Your task to perform on an android device: Add macbook to the cart on walmart, then select checkout. Image 0: 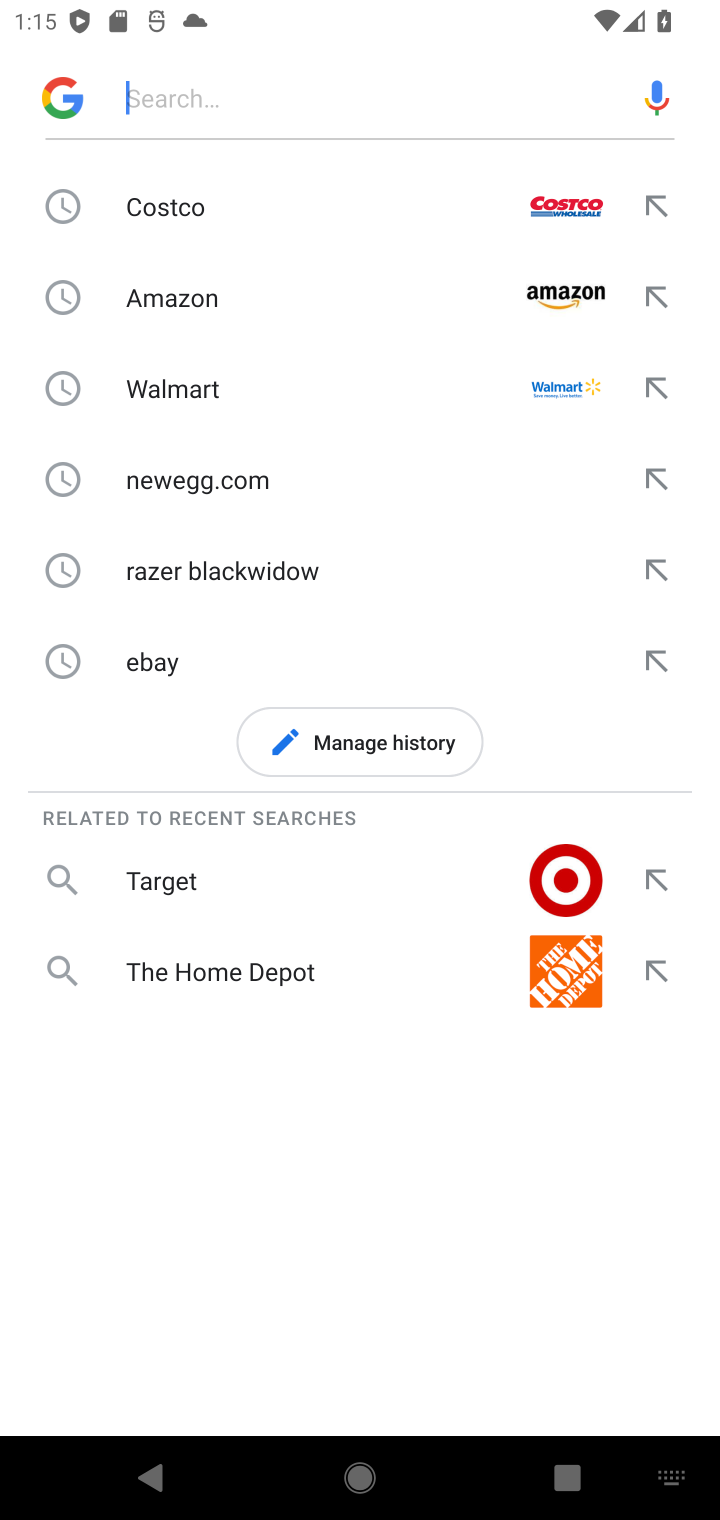
Step 0: press home button
Your task to perform on an android device: Add macbook to the cart on walmart, then select checkout. Image 1: 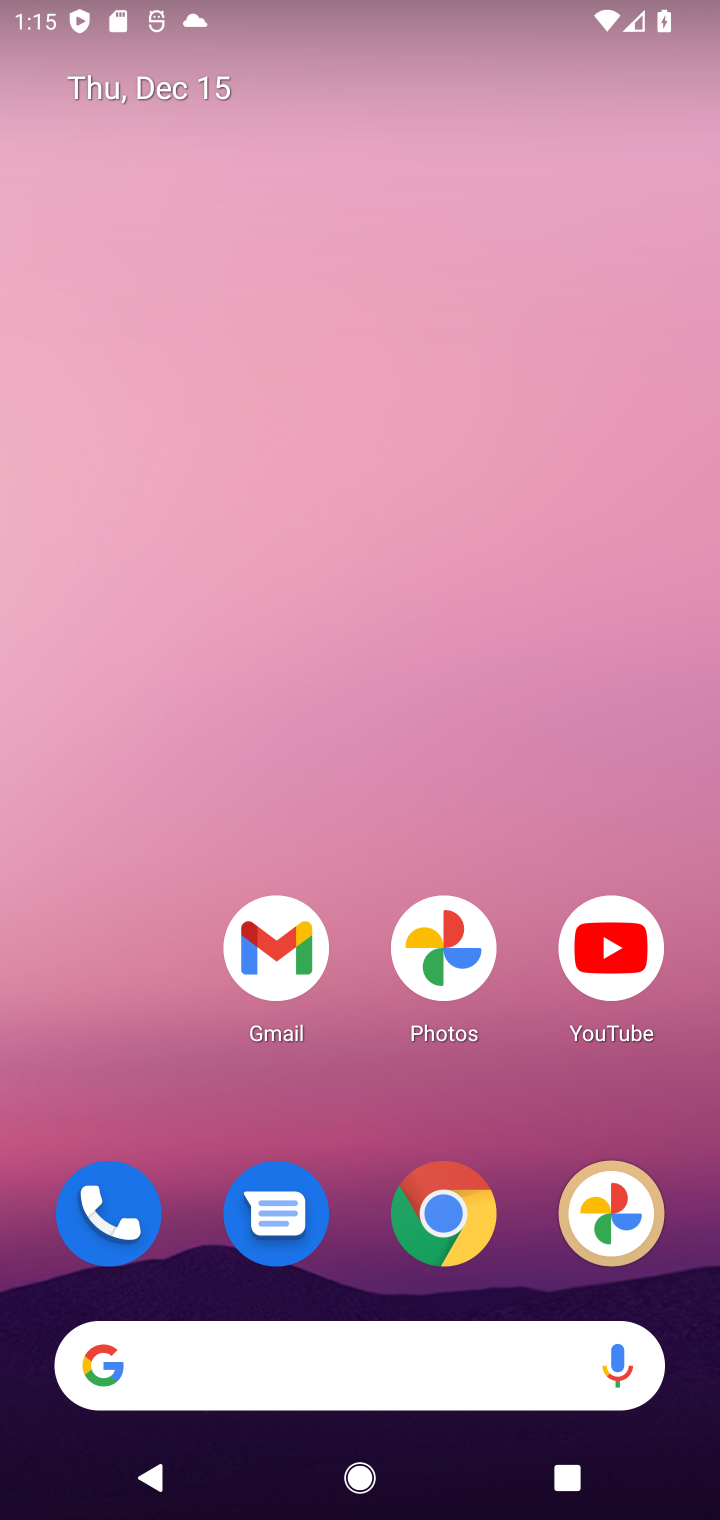
Step 1: click (480, 1209)
Your task to perform on an android device: Add macbook to the cart on walmart, then select checkout. Image 2: 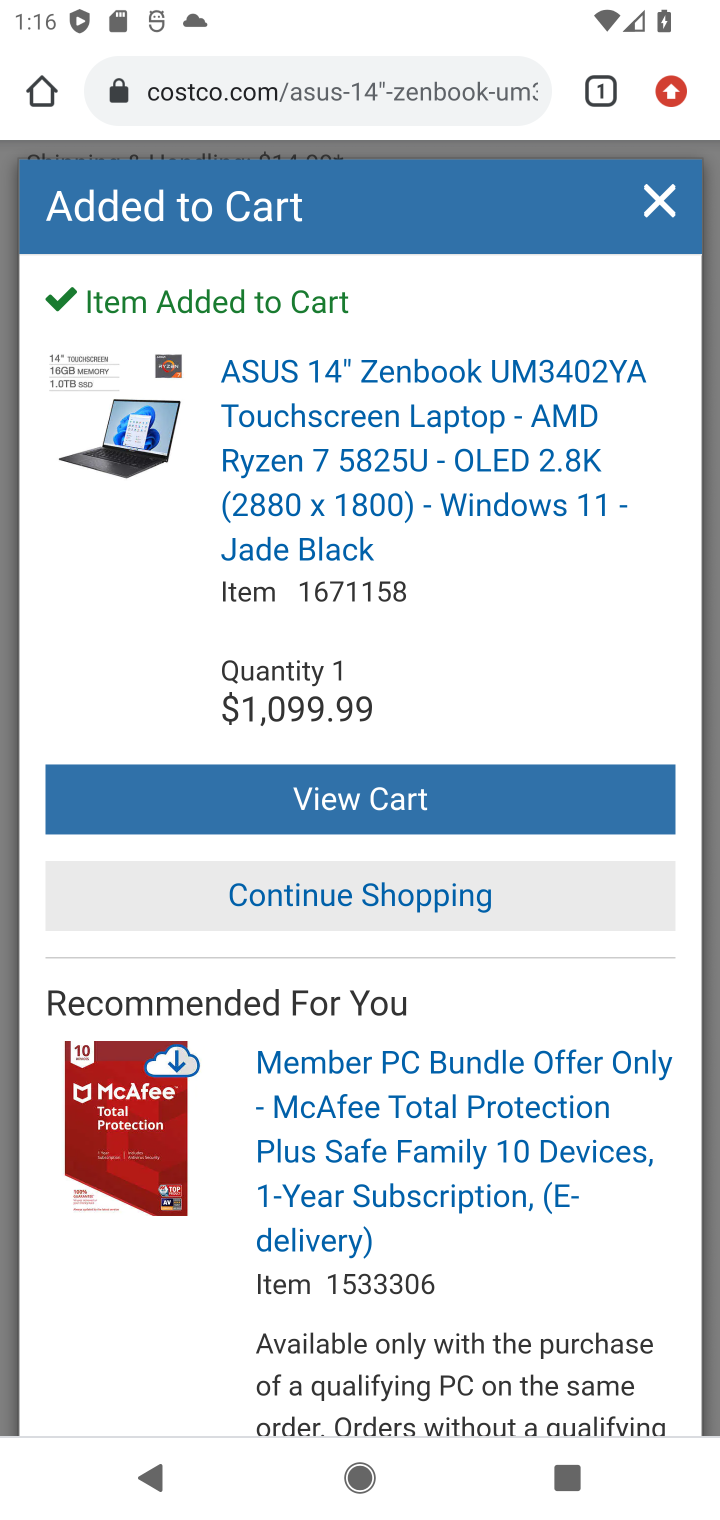
Step 2: click (668, 234)
Your task to perform on an android device: Add macbook to the cart on walmart, then select checkout. Image 3: 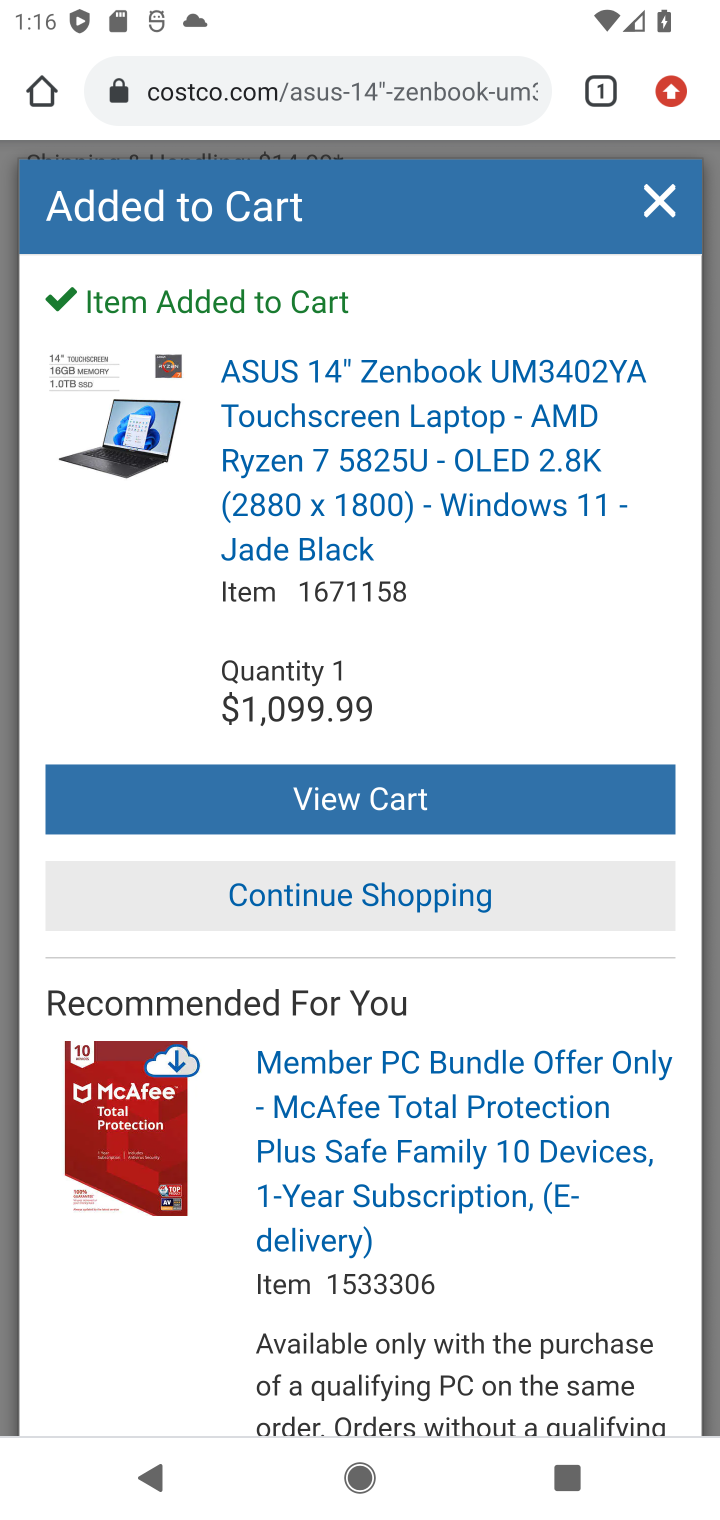
Step 3: click (311, 110)
Your task to perform on an android device: Add macbook to the cart on walmart, then select checkout. Image 4: 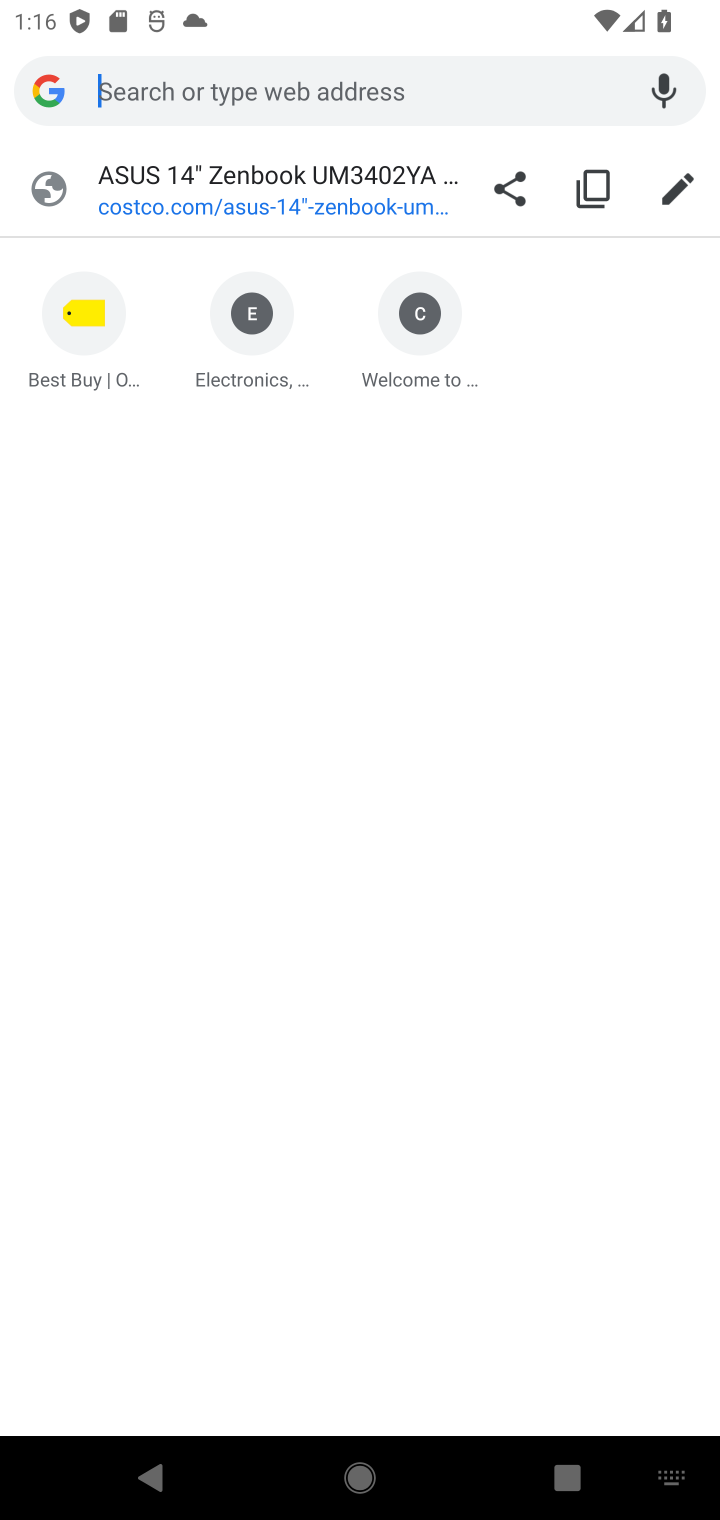
Step 4: type "walmart"
Your task to perform on an android device: Add macbook to the cart on walmart, then select checkout. Image 5: 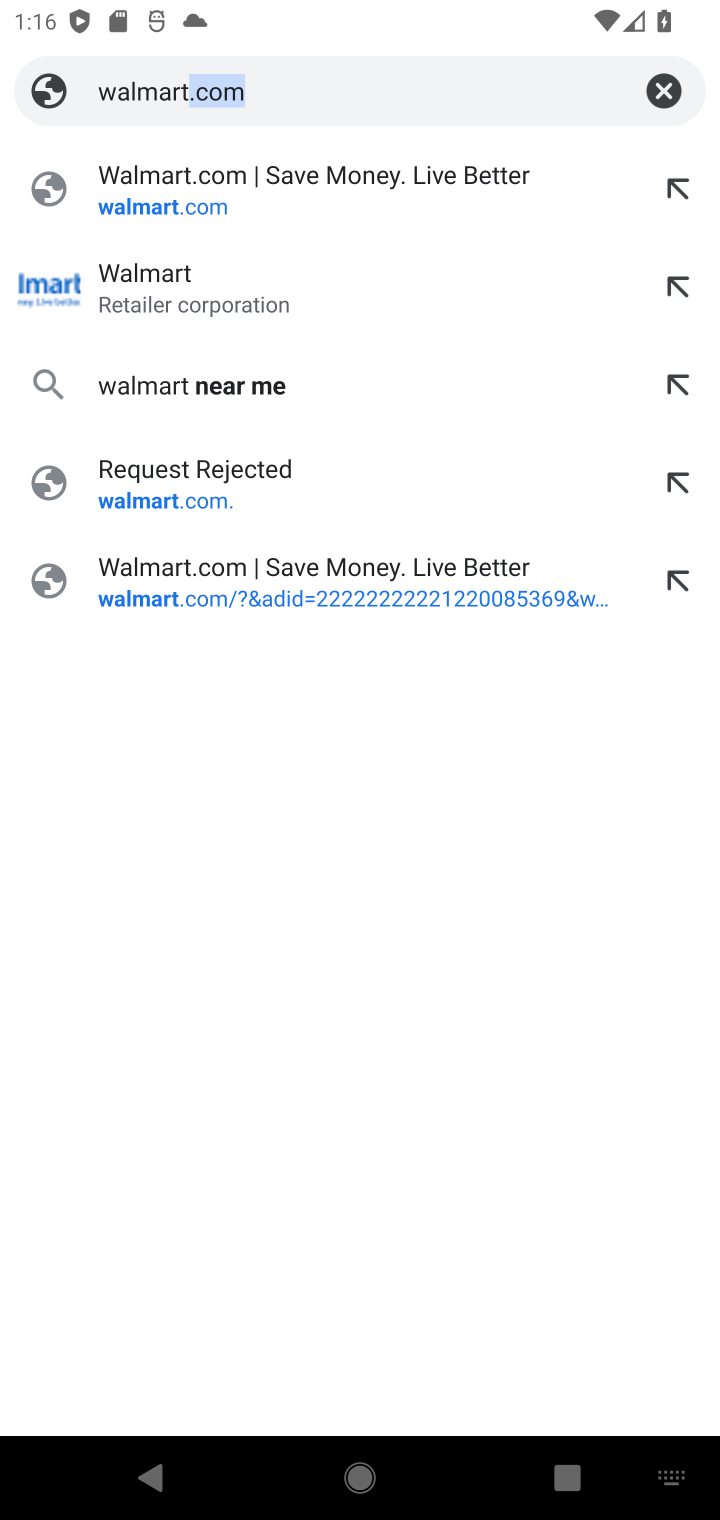
Step 5: click (310, 205)
Your task to perform on an android device: Add macbook to the cart on walmart, then select checkout. Image 6: 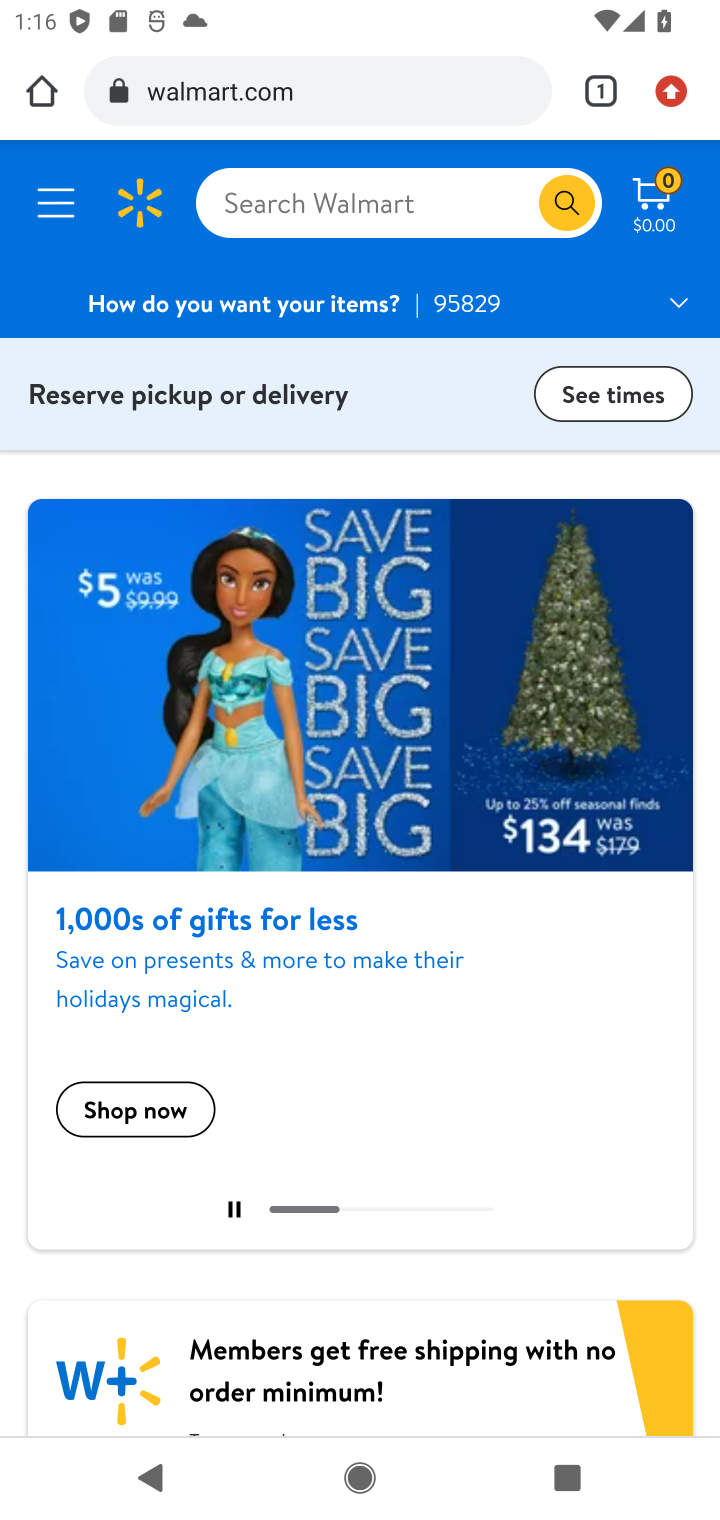
Step 6: click (355, 214)
Your task to perform on an android device: Add macbook to the cart on walmart, then select checkout. Image 7: 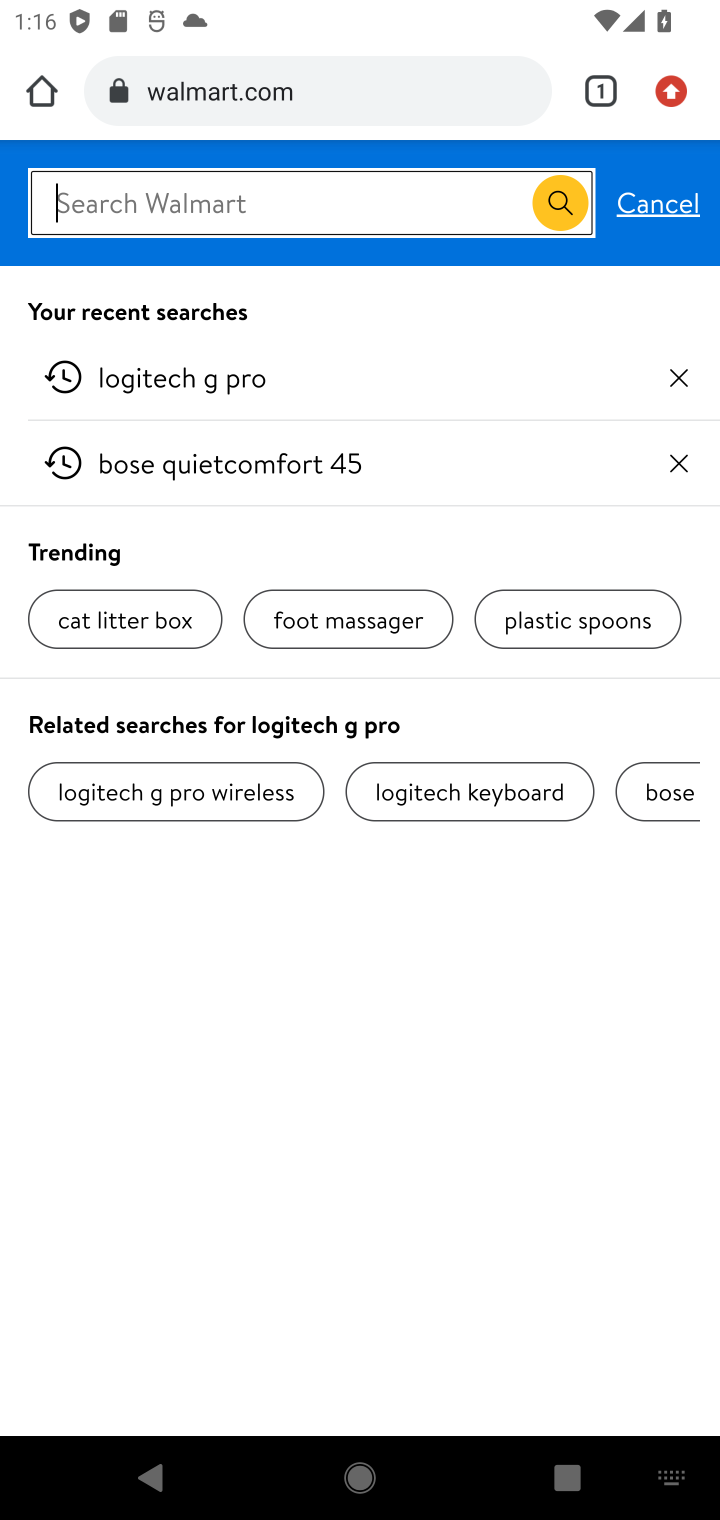
Step 7: type "macbook"
Your task to perform on an android device: Add macbook to the cart on walmart, then select checkout. Image 8: 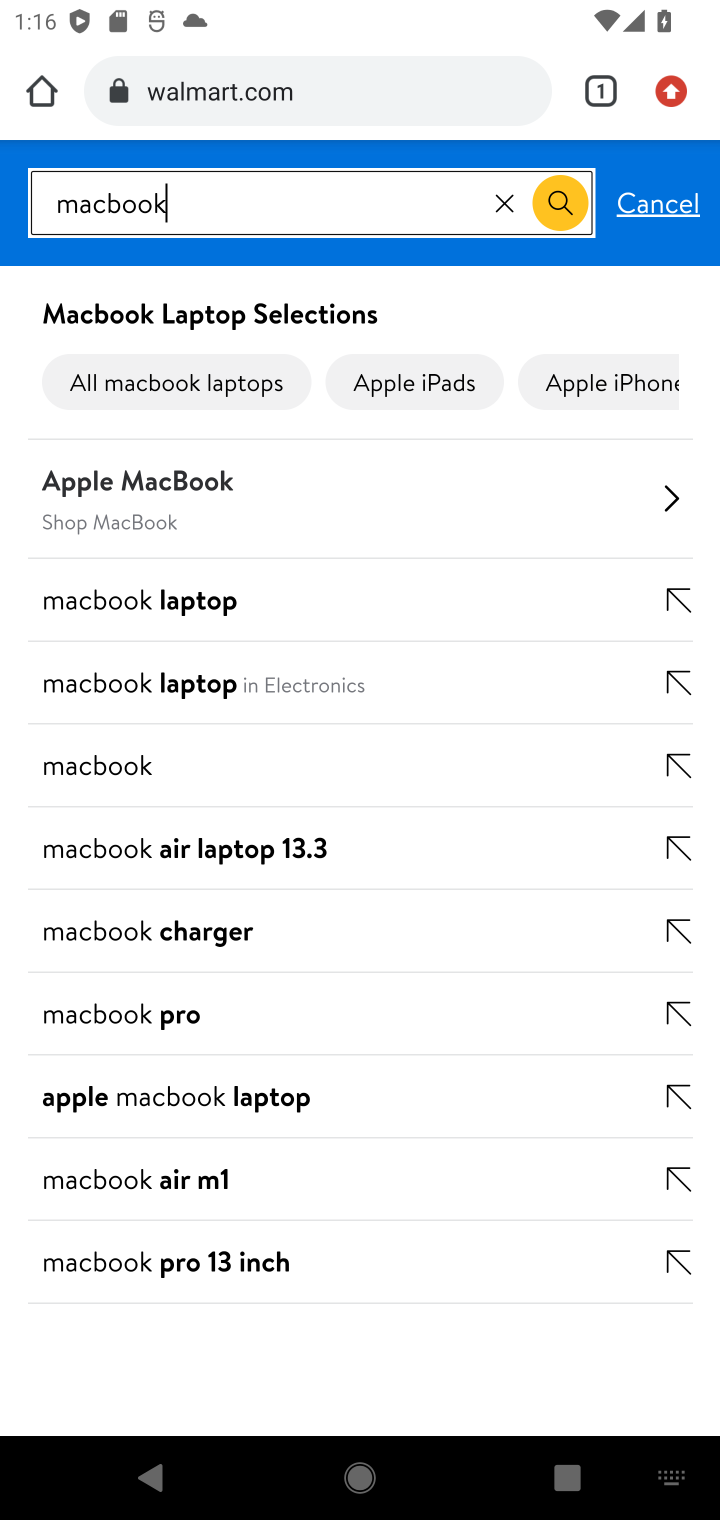
Step 8: click (566, 201)
Your task to perform on an android device: Add macbook to the cart on walmart, then select checkout. Image 9: 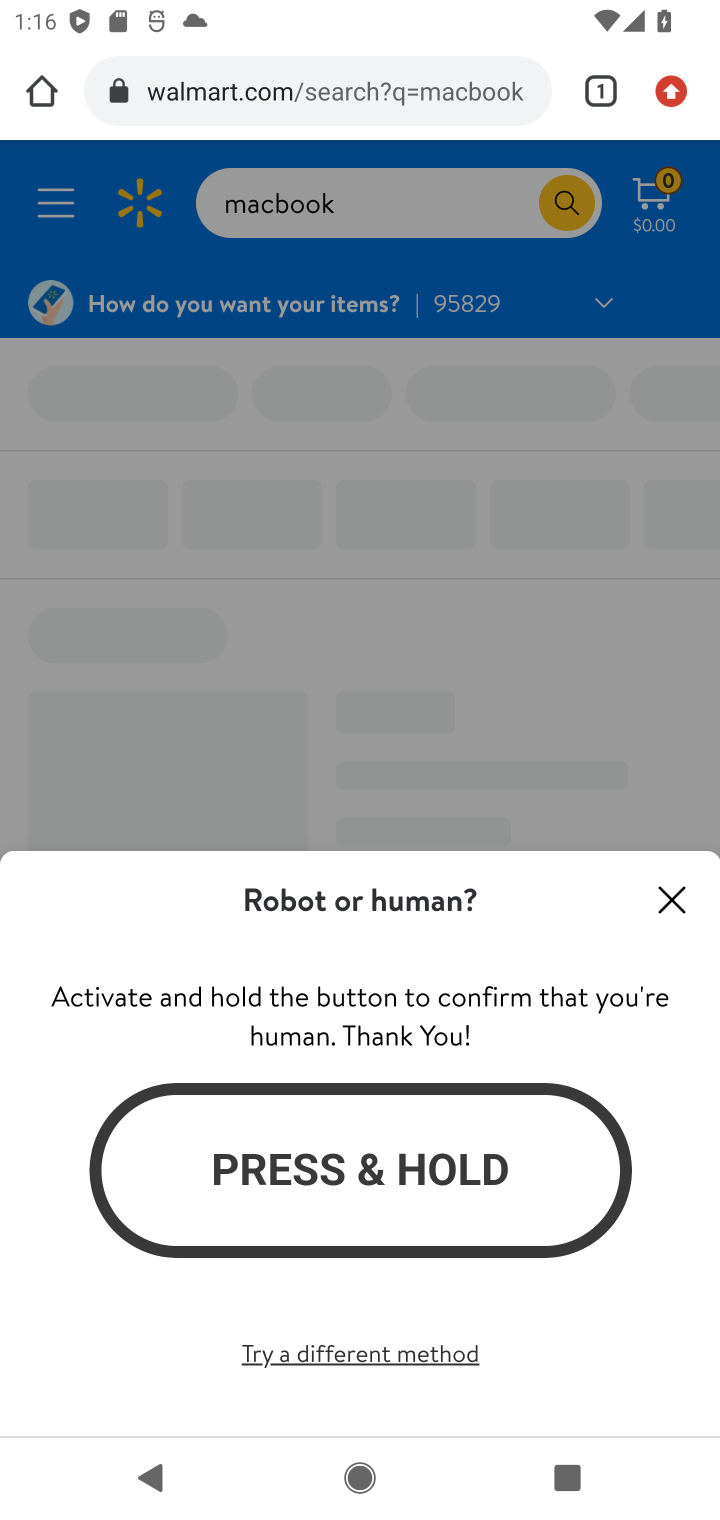
Step 9: click (669, 903)
Your task to perform on an android device: Add macbook to the cart on walmart, then select checkout. Image 10: 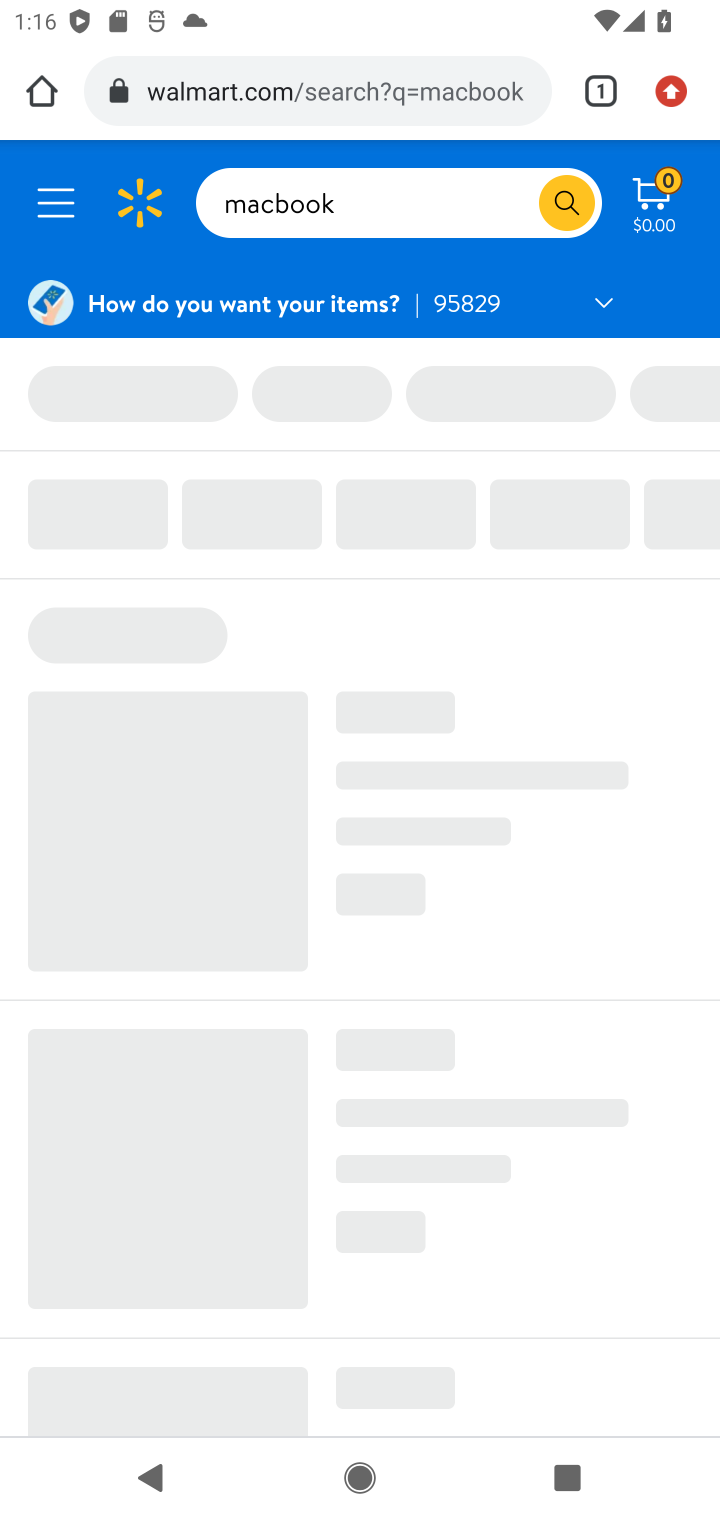
Step 10: task complete